Your task to perform on an android device: Open calendar and show me the second week of next month Image 0: 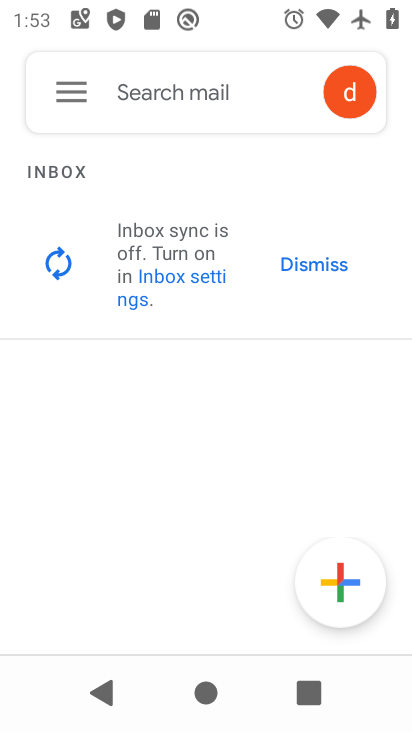
Step 0: press home button
Your task to perform on an android device: Open calendar and show me the second week of next month Image 1: 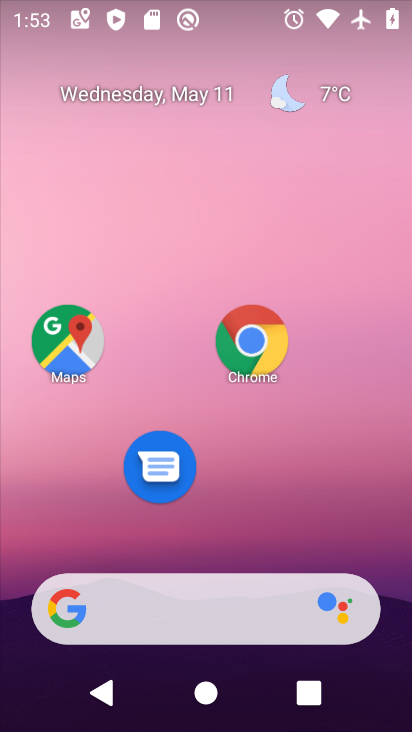
Step 1: drag from (167, 616) to (259, 208)
Your task to perform on an android device: Open calendar and show me the second week of next month Image 2: 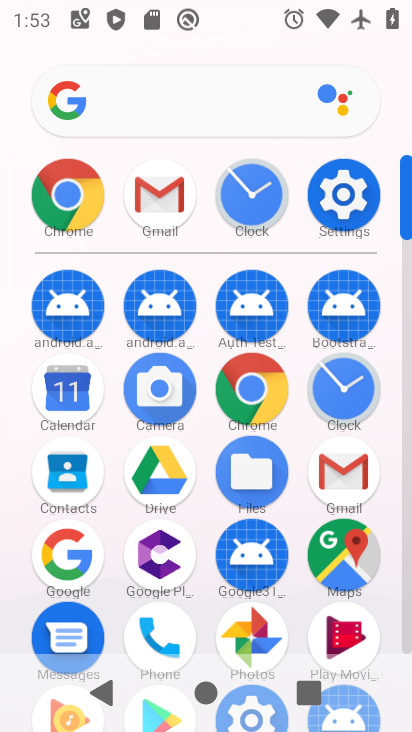
Step 2: click (56, 385)
Your task to perform on an android device: Open calendar and show me the second week of next month Image 3: 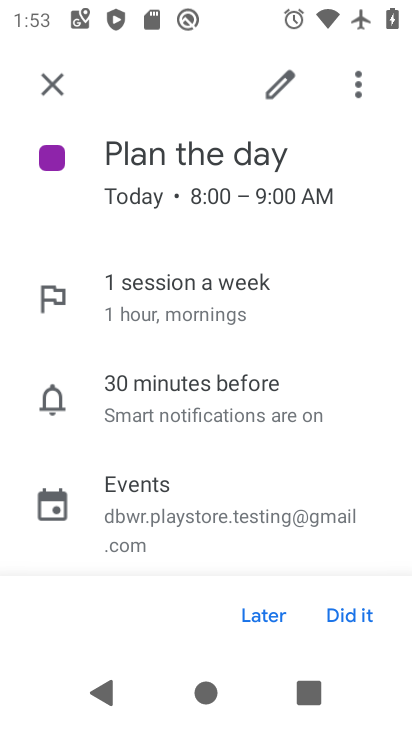
Step 3: click (49, 82)
Your task to perform on an android device: Open calendar and show me the second week of next month Image 4: 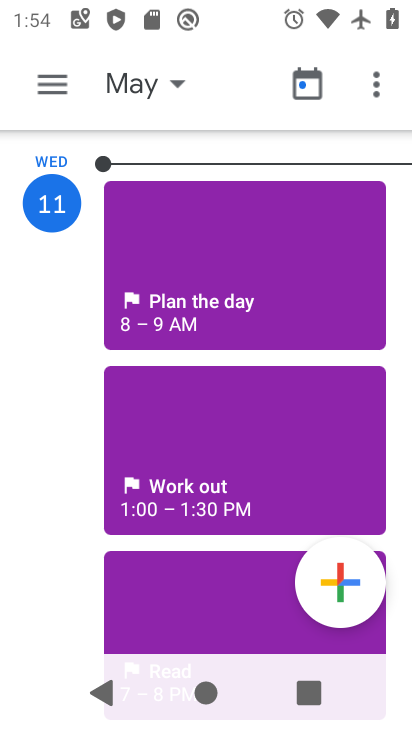
Step 4: click (141, 85)
Your task to perform on an android device: Open calendar and show me the second week of next month Image 5: 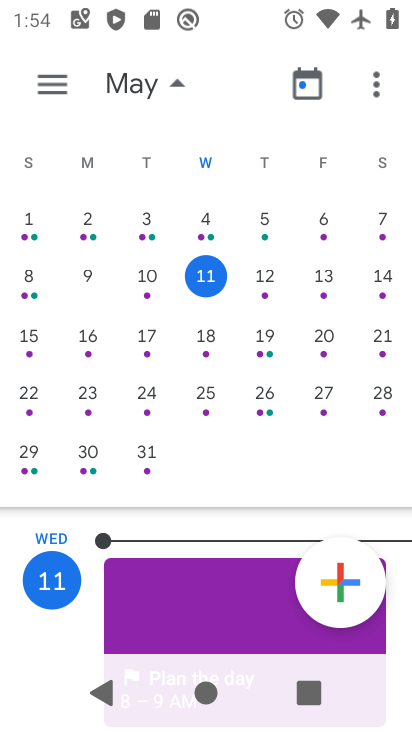
Step 5: drag from (344, 359) to (36, 350)
Your task to perform on an android device: Open calendar and show me the second week of next month Image 6: 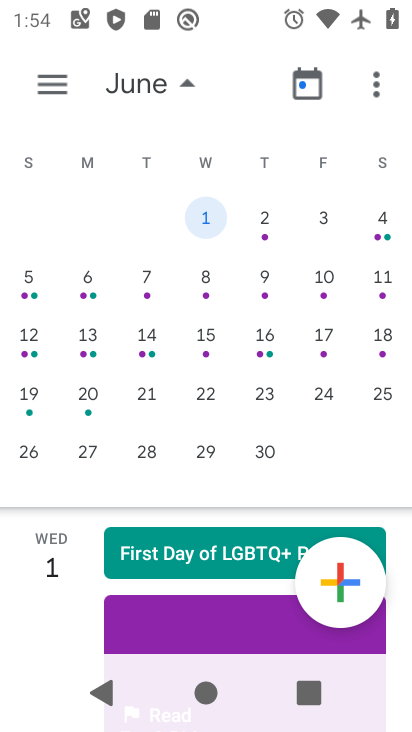
Step 6: click (22, 280)
Your task to perform on an android device: Open calendar and show me the second week of next month Image 7: 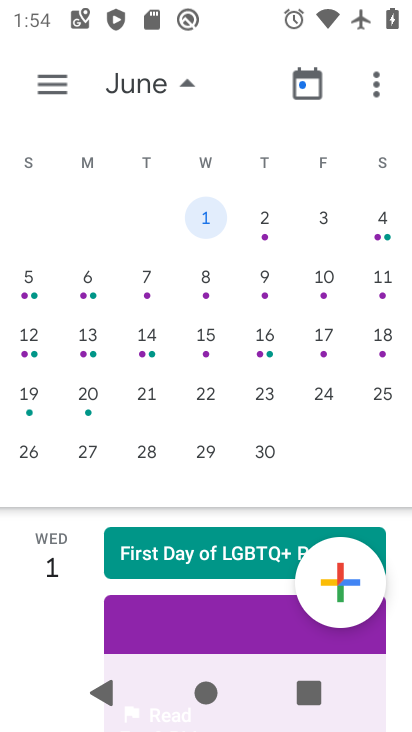
Step 7: click (29, 291)
Your task to perform on an android device: Open calendar and show me the second week of next month Image 8: 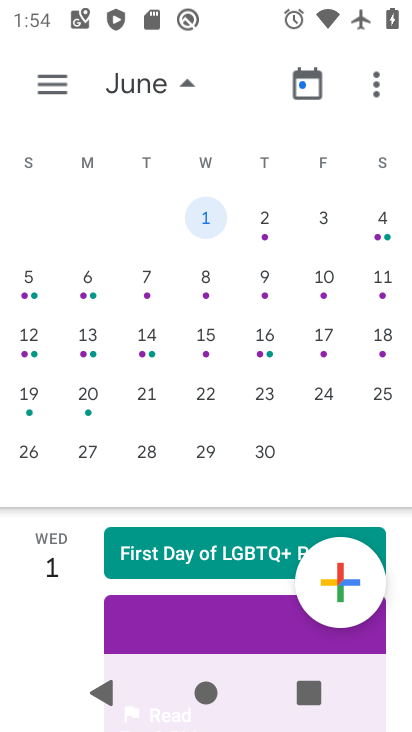
Step 8: click (26, 270)
Your task to perform on an android device: Open calendar and show me the second week of next month Image 9: 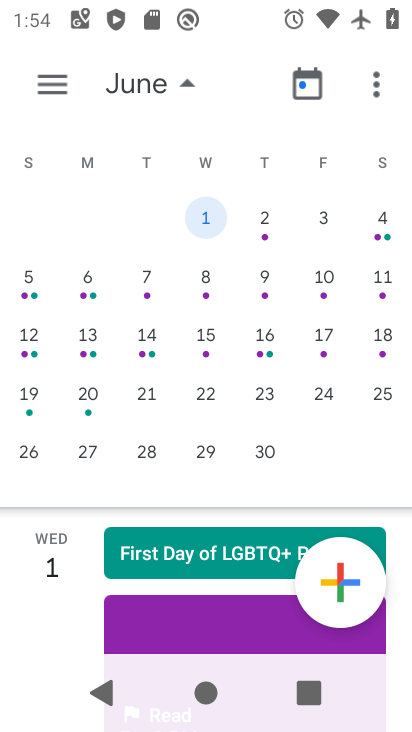
Step 9: click (30, 278)
Your task to perform on an android device: Open calendar and show me the second week of next month Image 10: 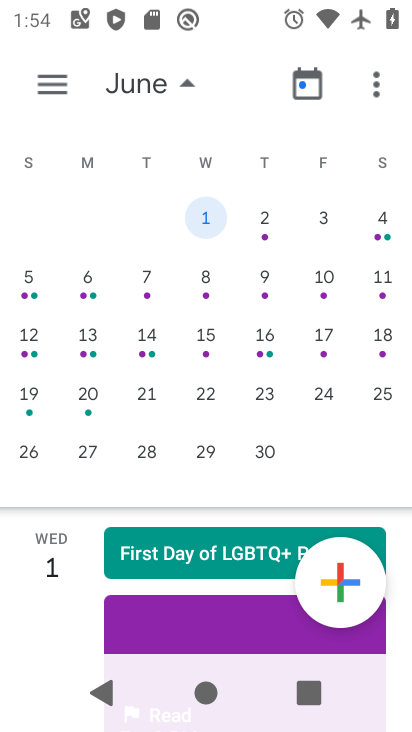
Step 10: click (37, 286)
Your task to perform on an android device: Open calendar and show me the second week of next month Image 11: 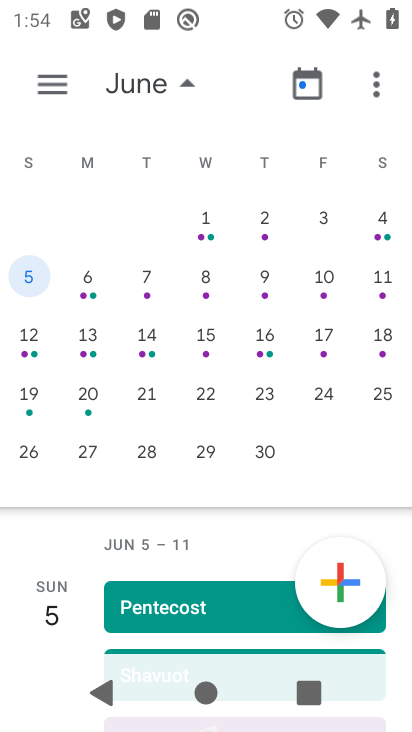
Step 11: click (51, 74)
Your task to perform on an android device: Open calendar and show me the second week of next month Image 12: 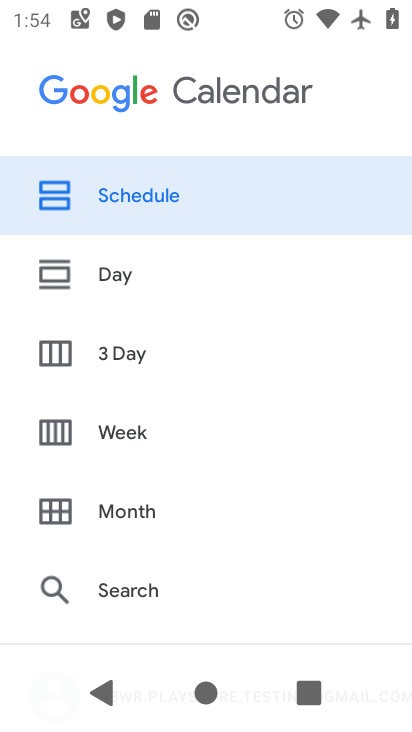
Step 12: click (120, 435)
Your task to perform on an android device: Open calendar and show me the second week of next month Image 13: 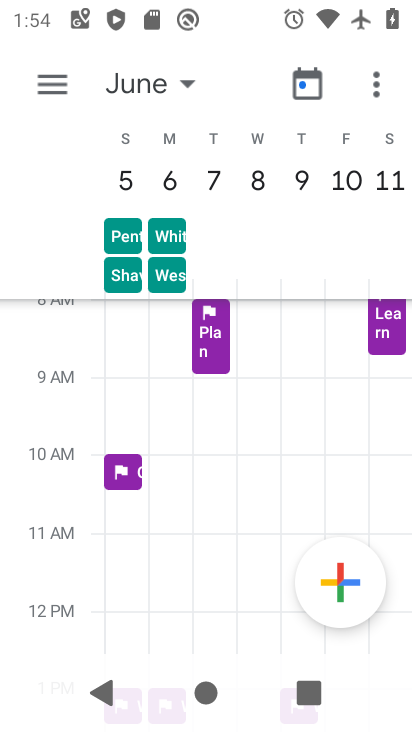
Step 13: task complete